Your task to perform on an android device: empty trash in the gmail app Image 0: 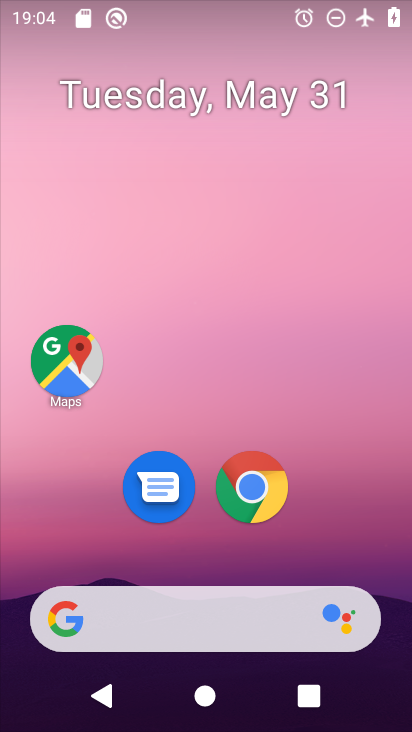
Step 0: drag from (341, 506) to (230, 159)
Your task to perform on an android device: empty trash in the gmail app Image 1: 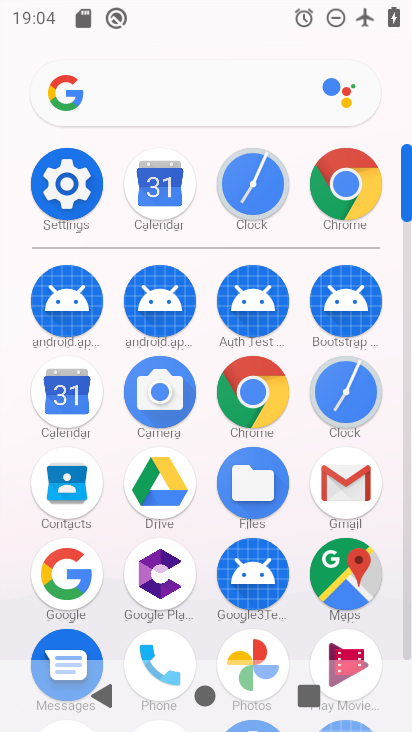
Step 1: click (318, 486)
Your task to perform on an android device: empty trash in the gmail app Image 2: 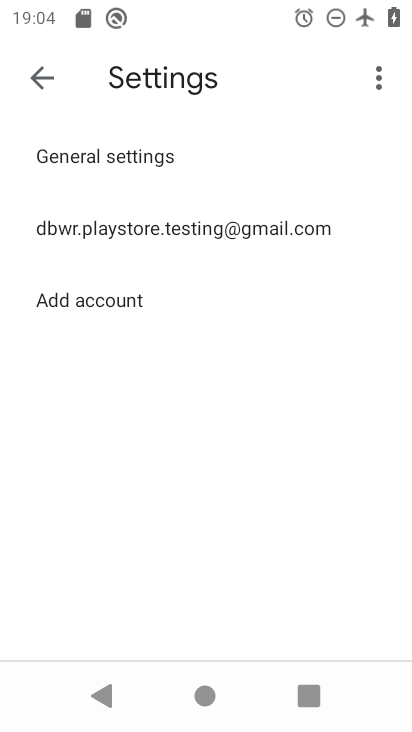
Step 2: click (37, 77)
Your task to perform on an android device: empty trash in the gmail app Image 3: 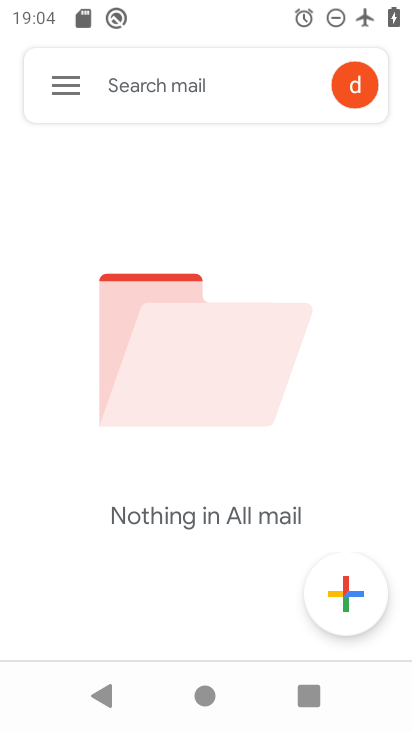
Step 3: click (63, 88)
Your task to perform on an android device: empty trash in the gmail app Image 4: 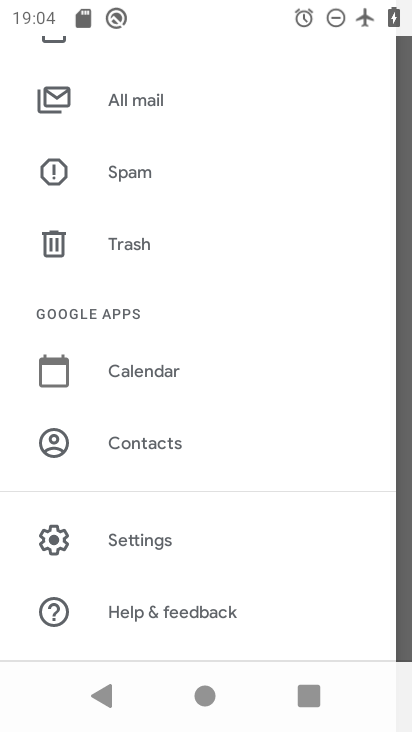
Step 4: click (134, 241)
Your task to perform on an android device: empty trash in the gmail app Image 5: 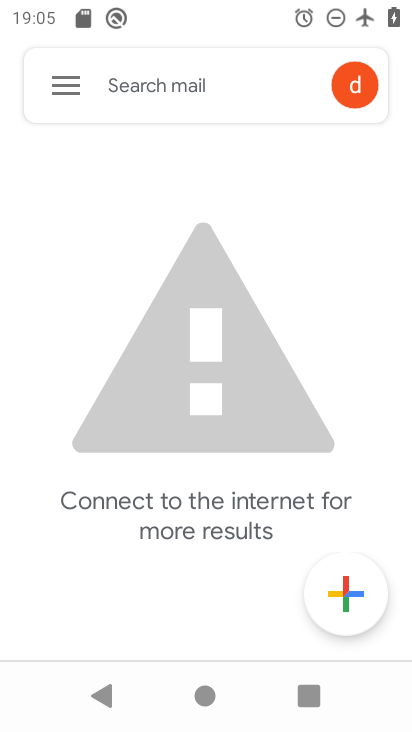
Step 5: click (60, 72)
Your task to perform on an android device: empty trash in the gmail app Image 6: 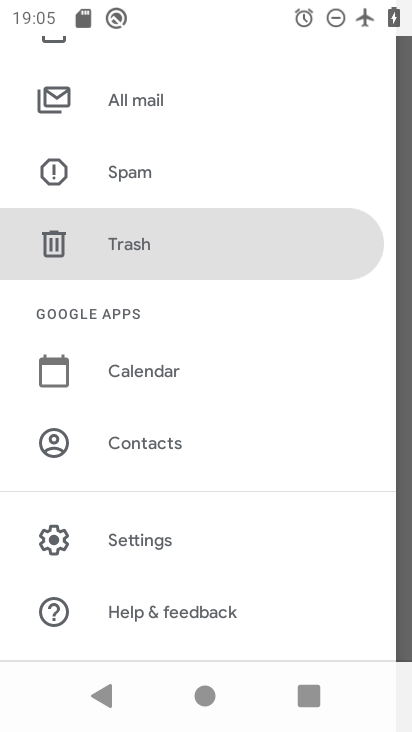
Step 6: click (138, 244)
Your task to perform on an android device: empty trash in the gmail app Image 7: 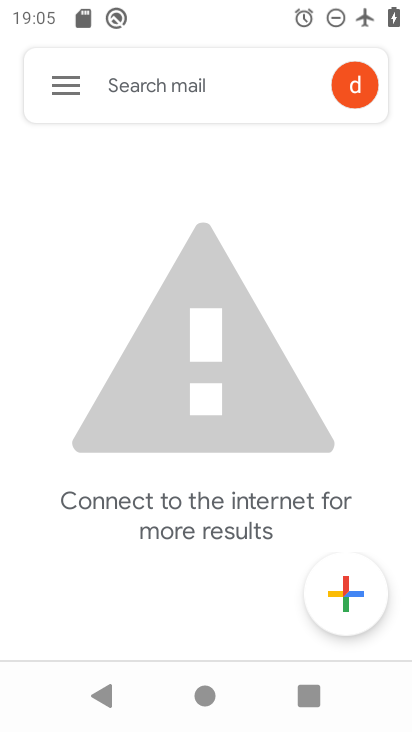
Step 7: task complete